Your task to perform on an android device: Go to ESPN.com Image 0: 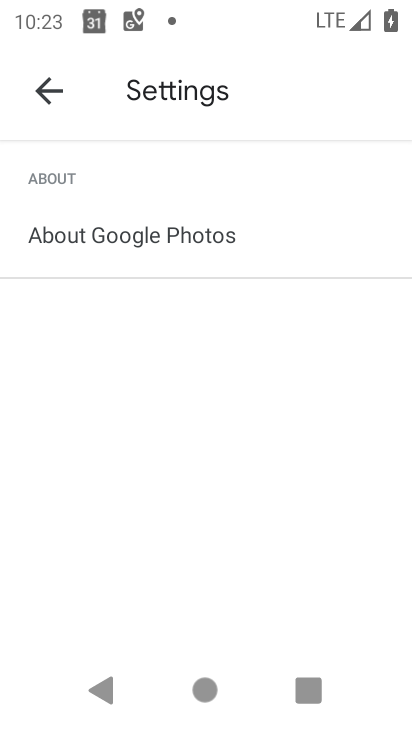
Step 0: press home button
Your task to perform on an android device: Go to ESPN.com Image 1: 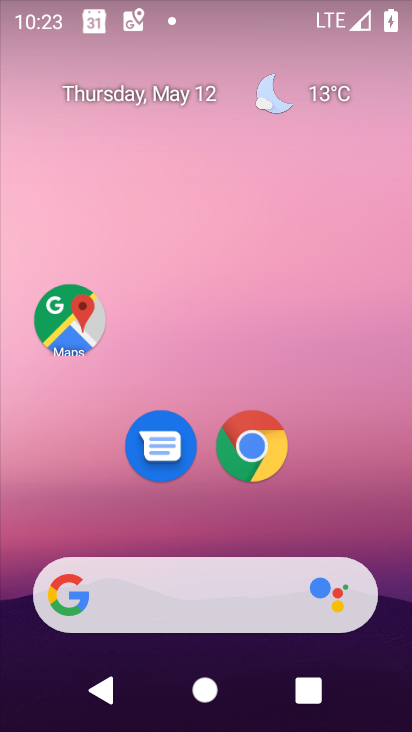
Step 1: drag from (303, 567) to (301, 0)
Your task to perform on an android device: Go to ESPN.com Image 2: 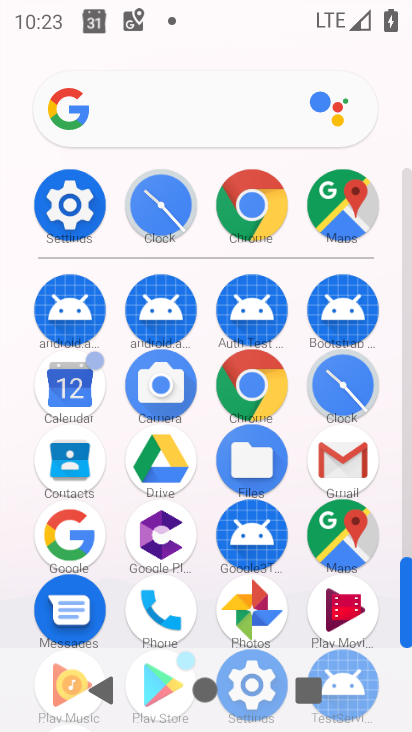
Step 2: click (253, 391)
Your task to perform on an android device: Go to ESPN.com Image 3: 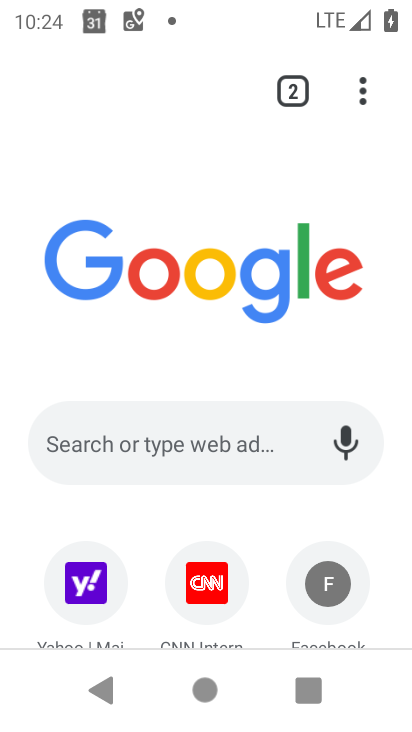
Step 3: click (178, 429)
Your task to perform on an android device: Go to ESPN.com Image 4: 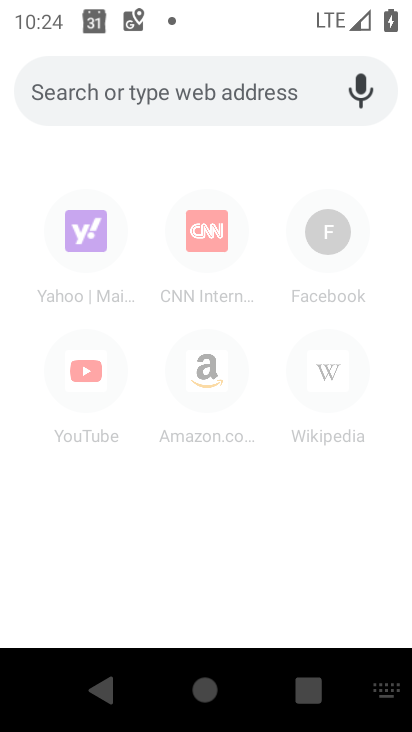
Step 4: type "espn.com"
Your task to perform on an android device: Go to ESPN.com Image 5: 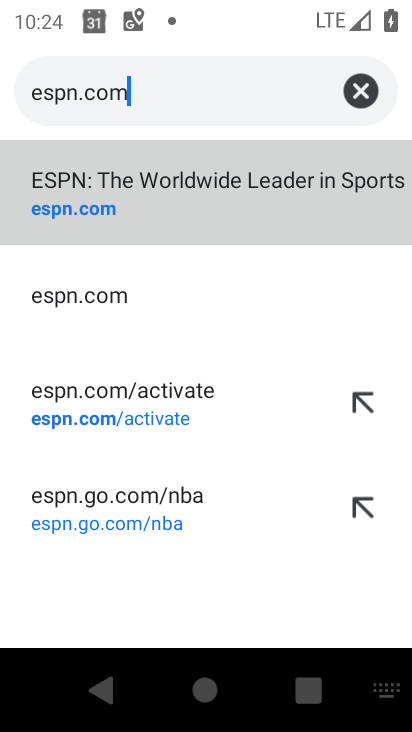
Step 5: click (232, 201)
Your task to perform on an android device: Go to ESPN.com Image 6: 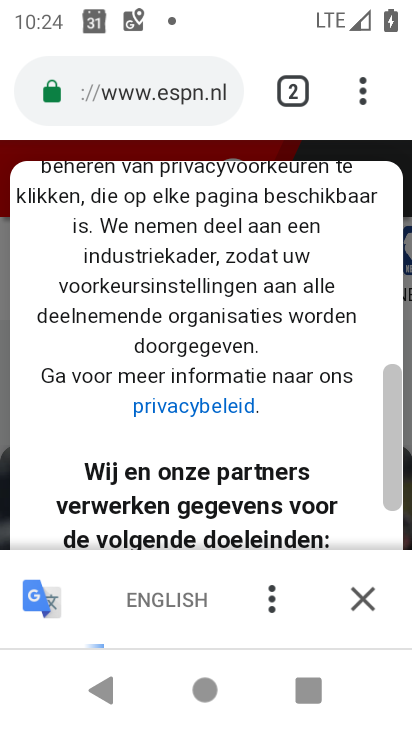
Step 6: task complete